Your task to perform on an android device: Go to accessibility settings Image 0: 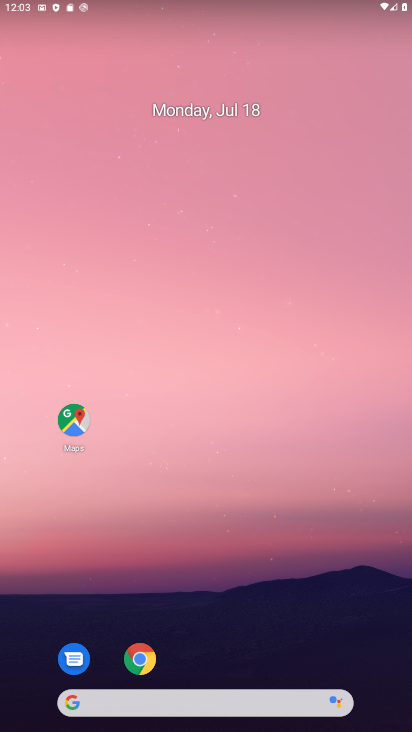
Step 0: drag from (210, 650) to (244, 157)
Your task to perform on an android device: Go to accessibility settings Image 1: 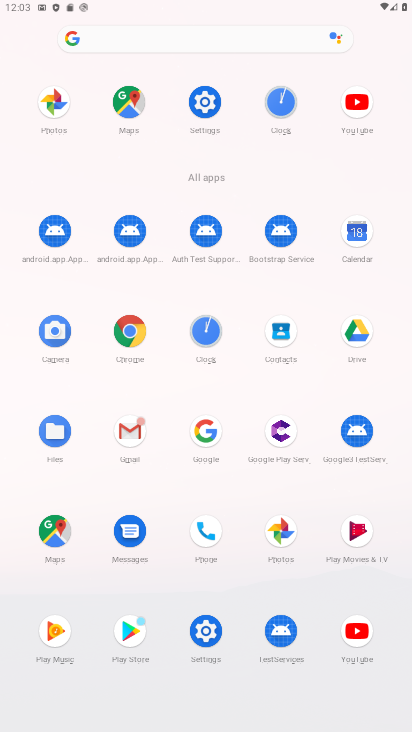
Step 1: click (213, 634)
Your task to perform on an android device: Go to accessibility settings Image 2: 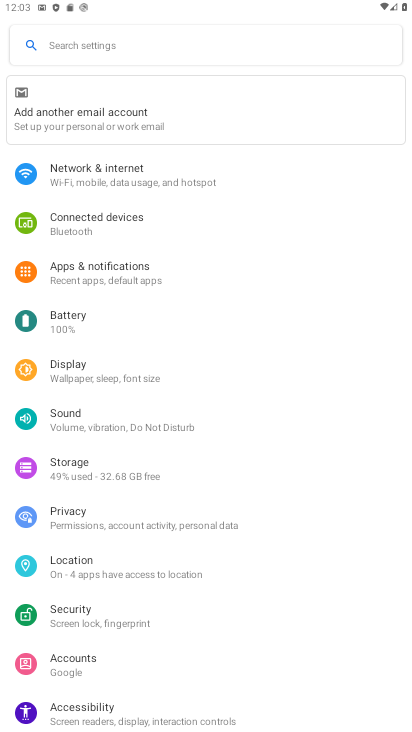
Step 2: click (112, 698)
Your task to perform on an android device: Go to accessibility settings Image 3: 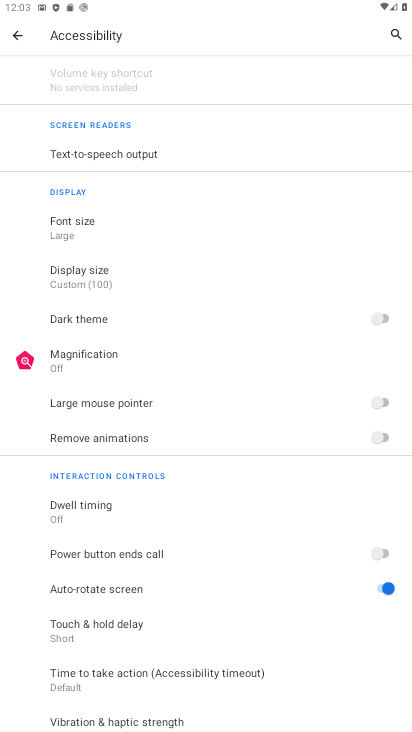
Step 3: task complete